Your task to perform on an android device: move an email to a new category in the gmail app Image 0: 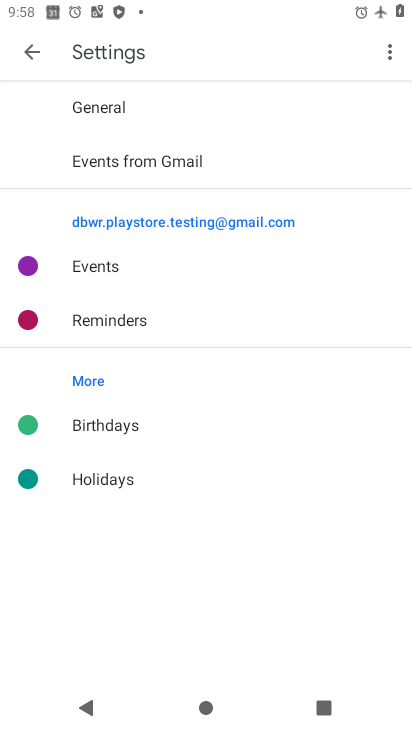
Step 0: press home button
Your task to perform on an android device: move an email to a new category in the gmail app Image 1: 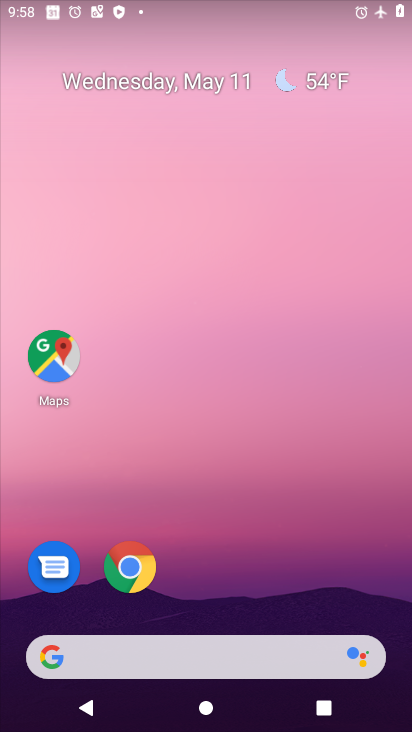
Step 1: drag from (242, 584) to (258, 75)
Your task to perform on an android device: move an email to a new category in the gmail app Image 2: 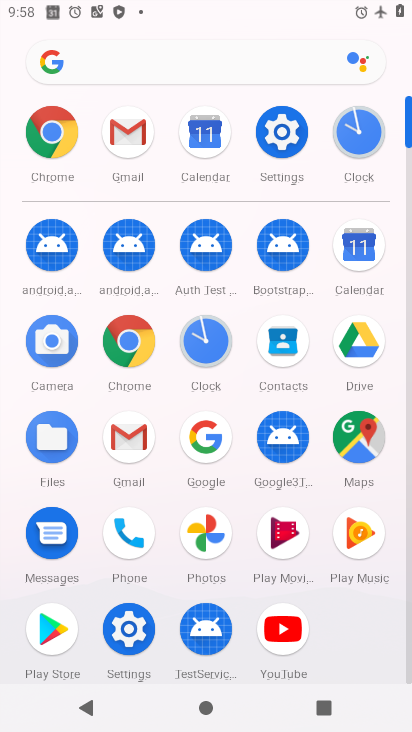
Step 2: click (136, 429)
Your task to perform on an android device: move an email to a new category in the gmail app Image 3: 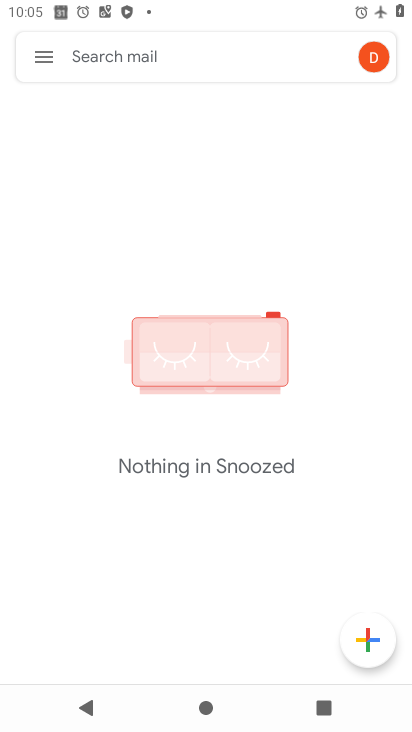
Step 3: press home button
Your task to perform on an android device: move an email to a new category in the gmail app Image 4: 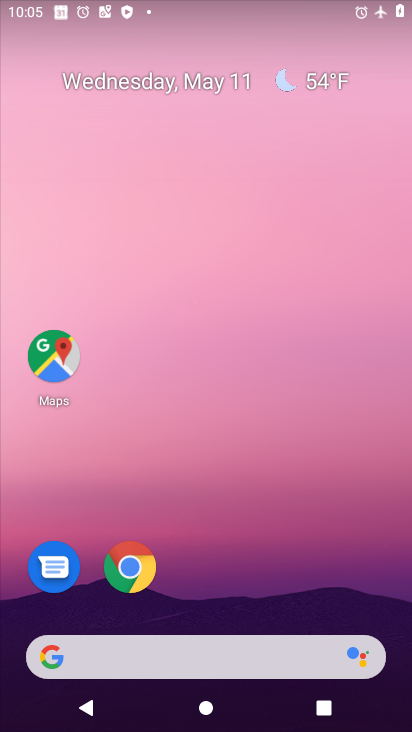
Step 4: drag from (235, 548) to (264, 44)
Your task to perform on an android device: move an email to a new category in the gmail app Image 5: 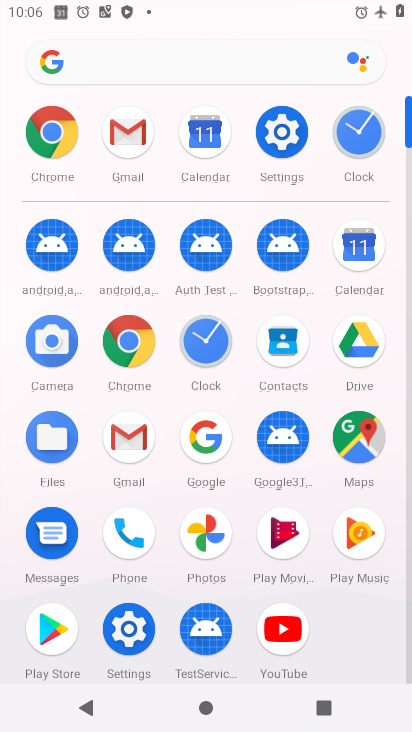
Step 5: click (142, 456)
Your task to perform on an android device: move an email to a new category in the gmail app Image 6: 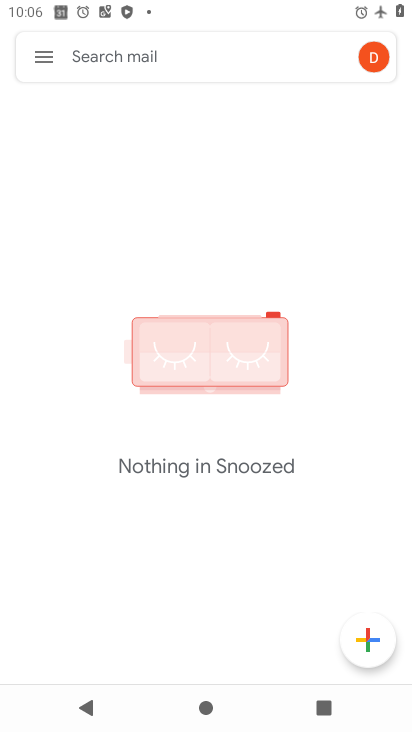
Step 6: click (50, 65)
Your task to perform on an android device: move an email to a new category in the gmail app Image 7: 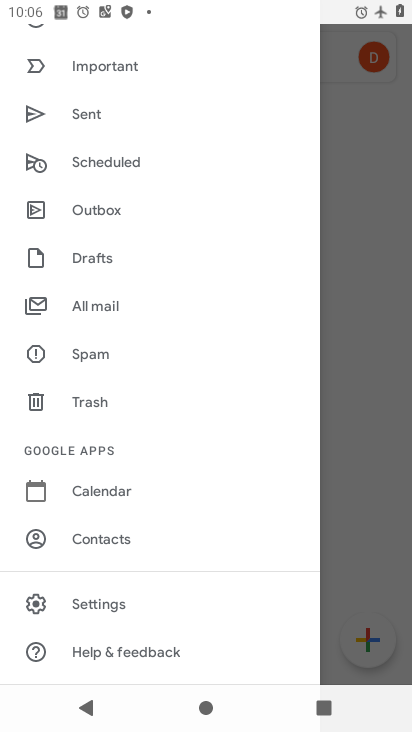
Step 7: click (86, 306)
Your task to perform on an android device: move an email to a new category in the gmail app Image 8: 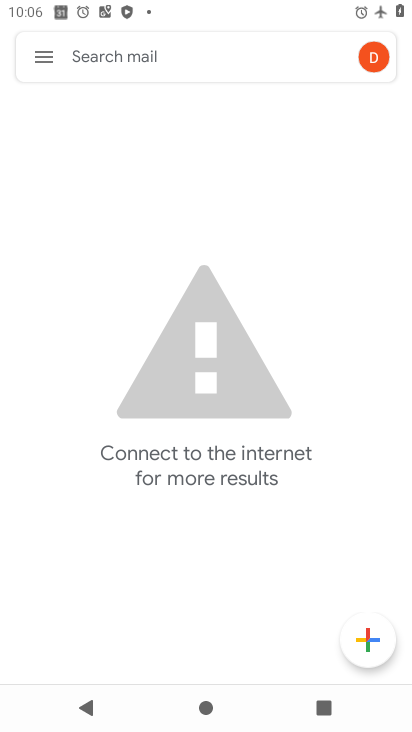
Step 8: task complete